Your task to perform on an android device: check the backup settings in the google photos Image 0: 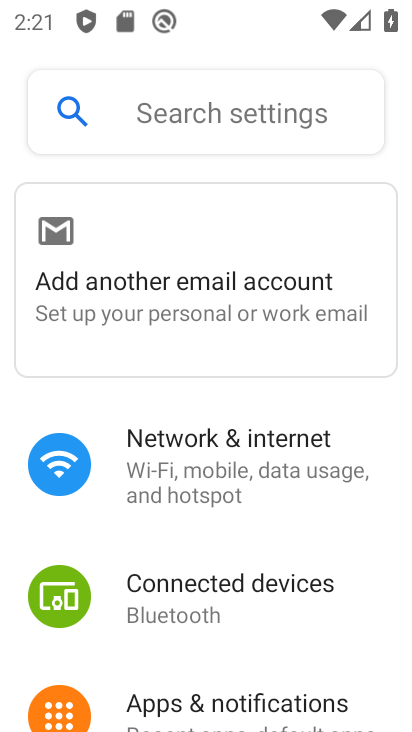
Step 0: press home button
Your task to perform on an android device: check the backup settings in the google photos Image 1: 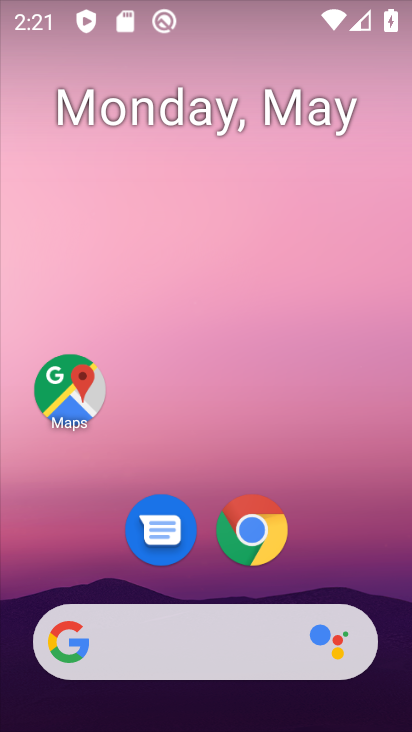
Step 1: drag from (275, 680) to (347, 38)
Your task to perform on an android device: check the backup settings in the google photos Image 2: 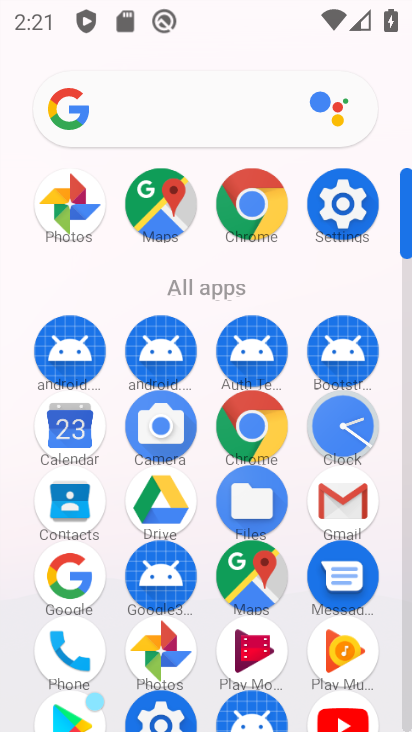
Step 2: click (172, 634)
Your task to perform on an android device: check the backup settings in the google photos Image 3: 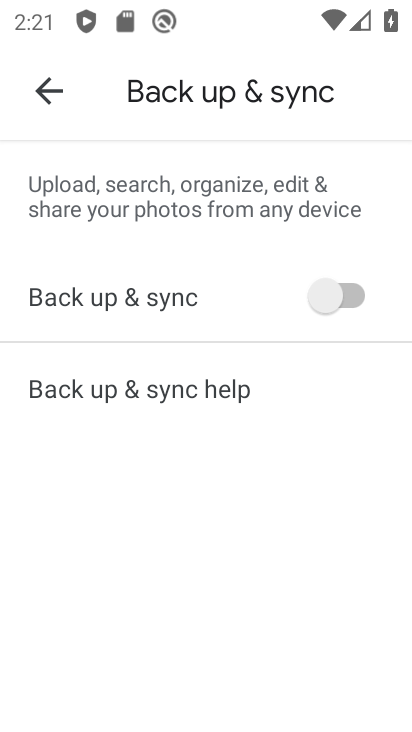
Step 3: click (37, 80)
Your task to perform on an android device: check the backup settings in the google photos Image 4: 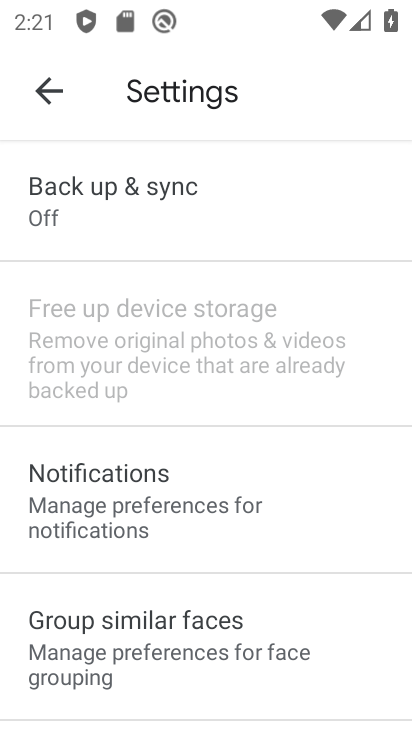
Step 4: click (113, 187)
Your task to perform on an android device: check the backup settings in the google photos Image 5: 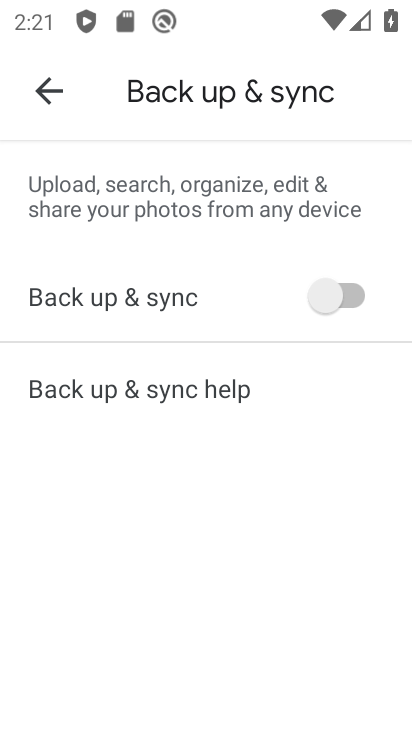
Step 5: task complete